Your task to perform on an android device: toggle priority inbox in the gmail app Image 0: 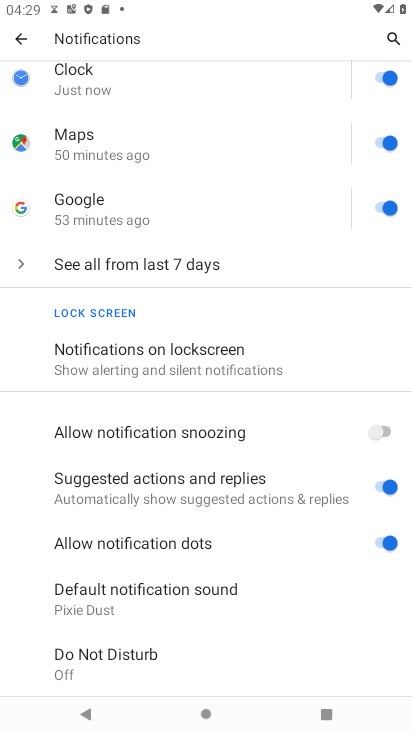
Step 0: press home button
Your task to perform on an android device: toggle priority inbox in the gmail app Image 1: 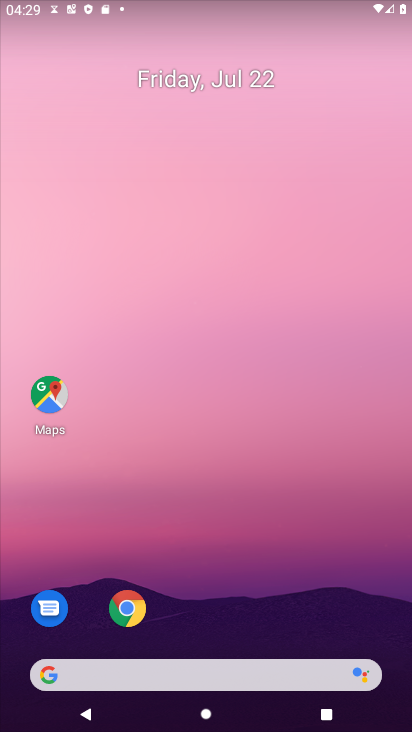
Step 1: drag from (240, 716) to (252, 109)
Your task to perform on an android device: toggle priority inbox in the gmail app Image 2: 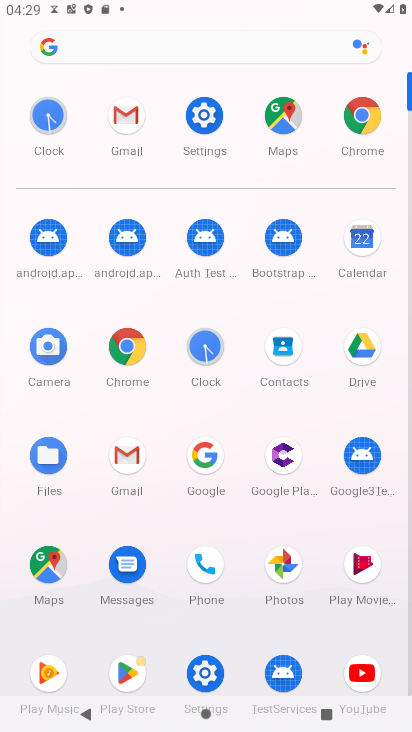
Step 2: click (126, 122)
Your task to perform on an android device: toggle priority inbox in the gmail app Image 3: 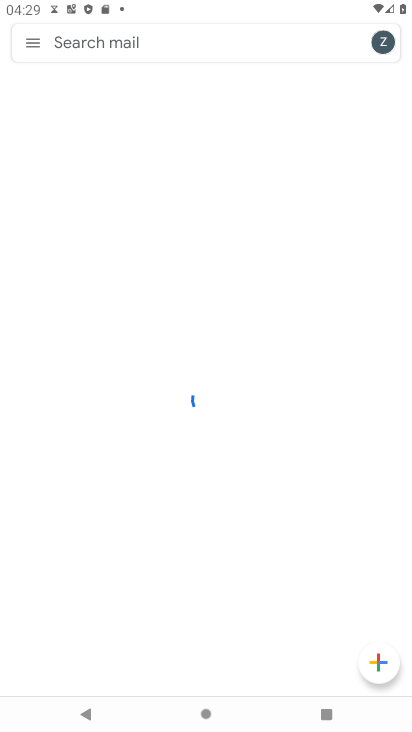
Step 3: click (36, 42)
Your task to perform on an android device: toggle priority inbox in the gmail app Image 4: 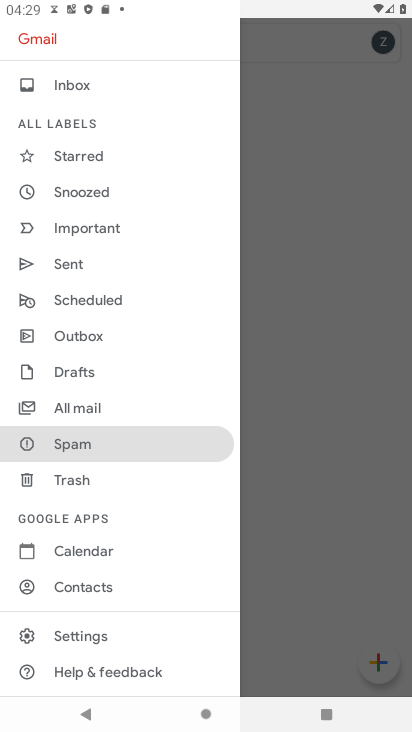
Step 4: click (74, 630)
Your task to perform on an android device: toggle priority inbox in the gmail app Image 5: 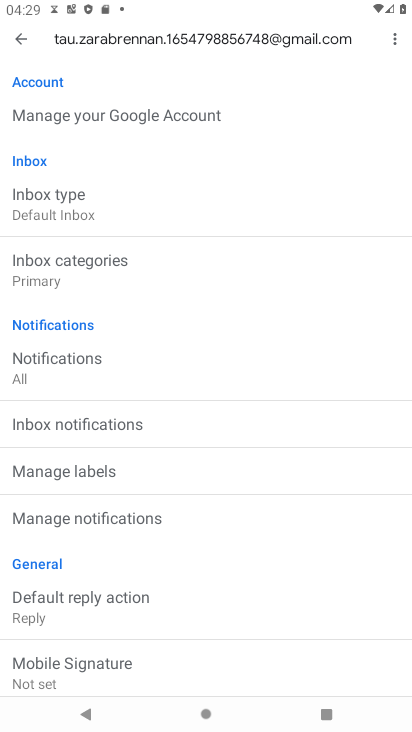
Step 5: drag from (51, 208) to (55, 493)
Your task to perform on an android device: toggle priority inbox in the gmail app Image 6: 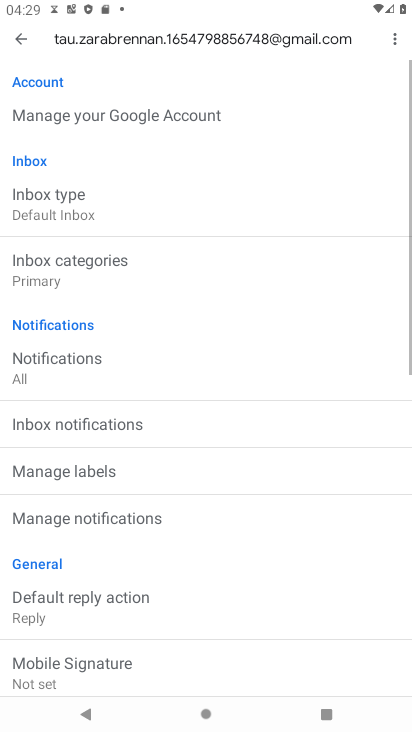
Step 6: click (34, 207)
Your task to perform on an android device: toggle priority inbox in the gmail app Image 7: 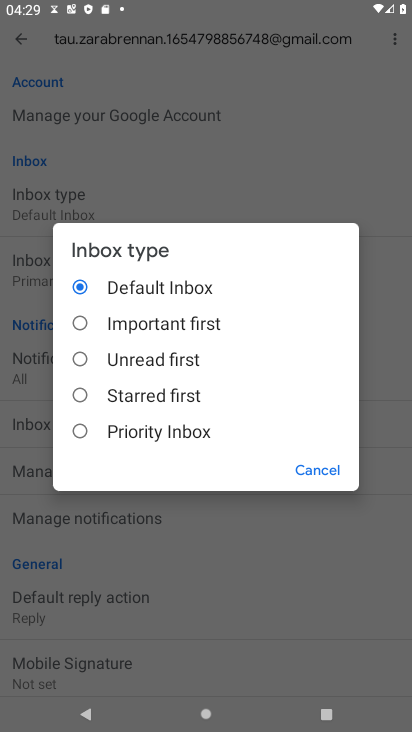
Step 7: click (86, 429)
Your task to perform on an android device: toggle priority inbox in the gmail app Image 8: 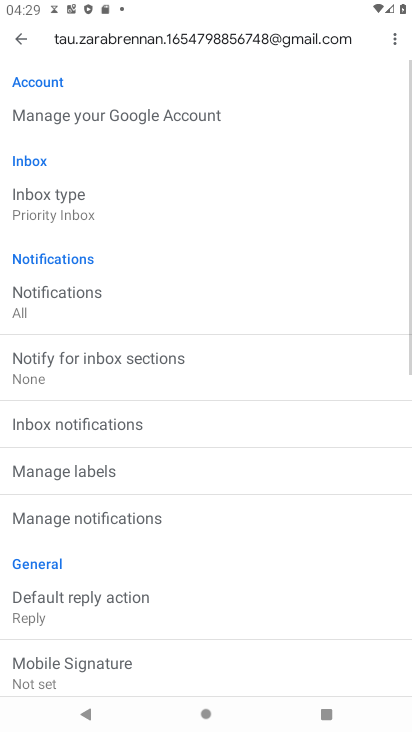
Step 8: task complete